Your task to perform on an android device: Open Google Maps and go to "Timeline" Image 0: 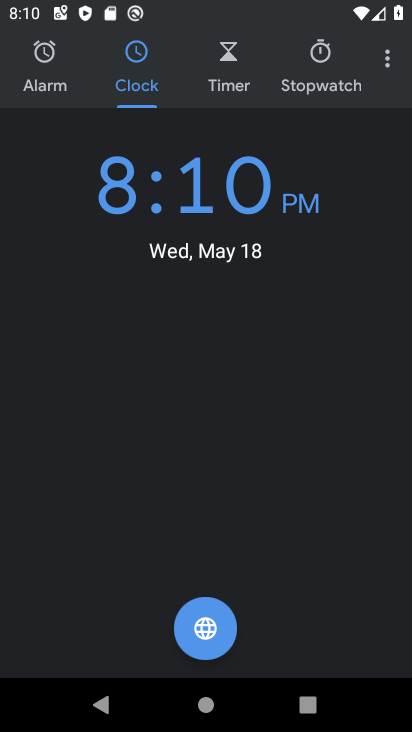
Step 0: press home button
Your task to perform on an android device: Open Google Maps and go to "Timeline" Image 1: 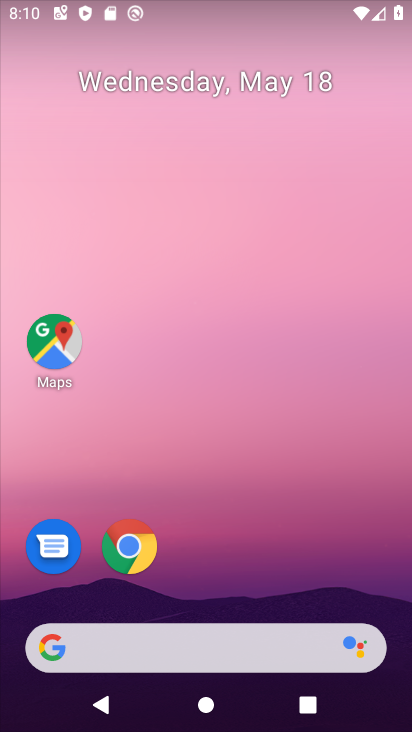
Step 1: drag from (254, 689) to (334, 234)
Your task to perform on an android device: Open Google Maps and go to "Timeline" Image 2: 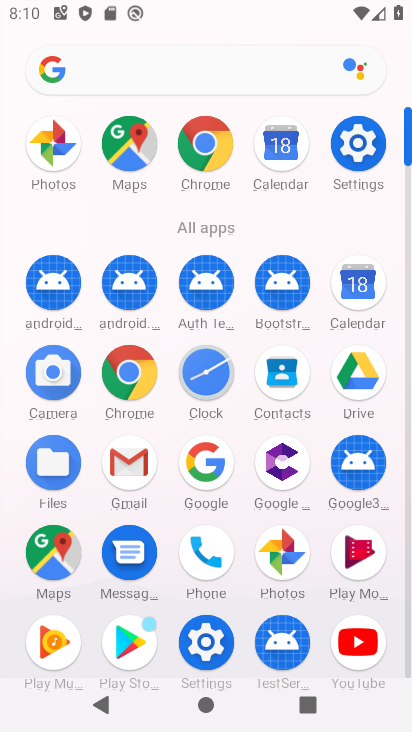
Step 2: click (64, 563)
Your task to perform on an android device: Open Google Maps and go to "Timeline" Image 3: 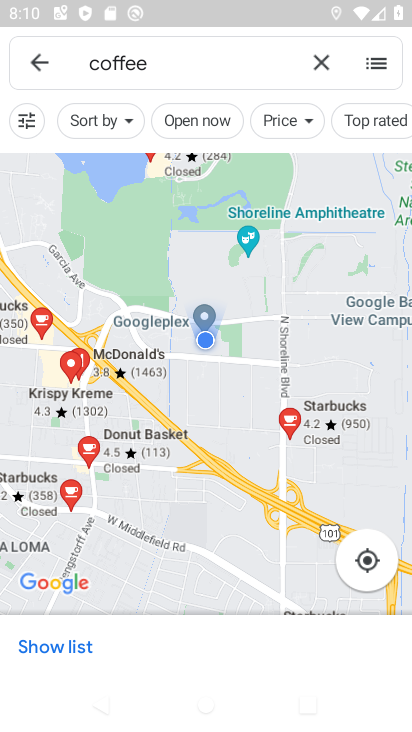
Step 3: click (44, 66)
Your task to perform on an android device: Open Google Maps and go to "Timeline" Image 4: 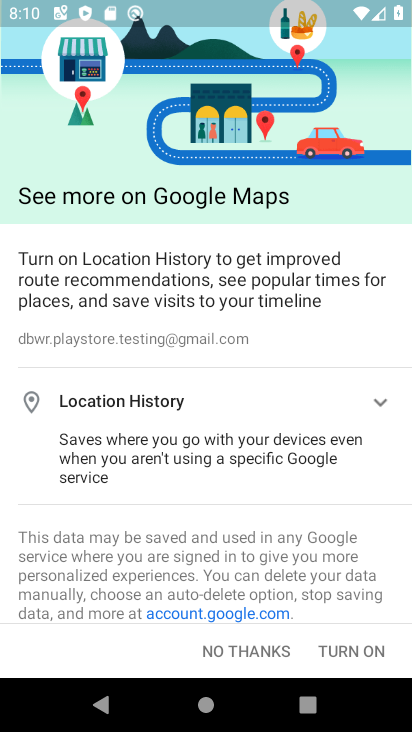
Step 4: click (228, 650)
Your task to perform on an android device: Open Google Maps and go to "Timeline" Image 5: 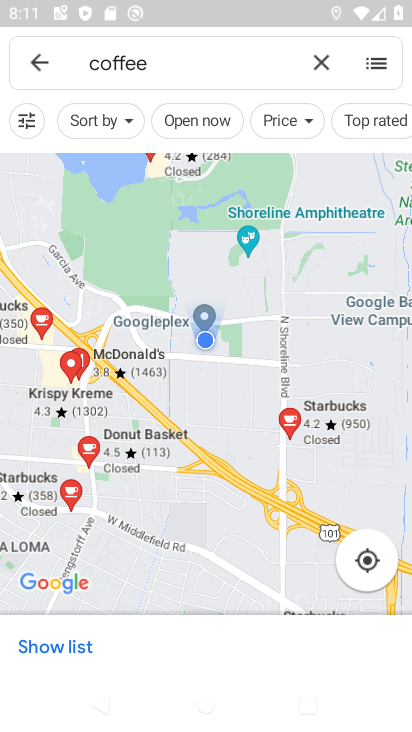
Step 5: click (34, 63)
Your task to perform on an android device: Open Google Maps and go to "Timeline" Image 6: 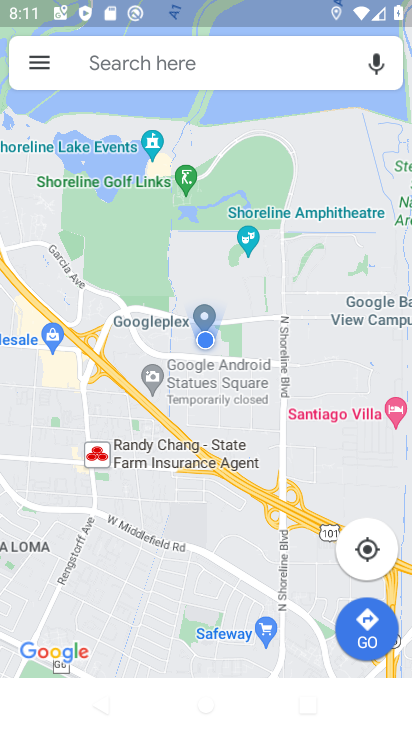
Step 6: click (38, 51)
Your task to perform on an android device: Open Google Maps and go to "Timeline" Image 7: 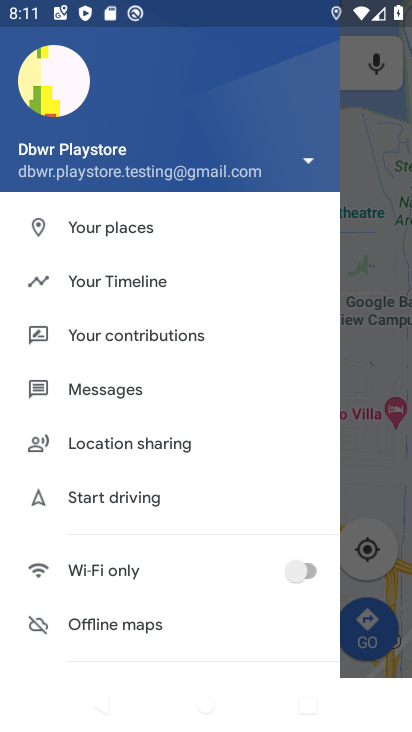
Step 7: click (106, 290)
Your task to perform on an android device: Open Google Maps and go to "Timeline" Image 8: 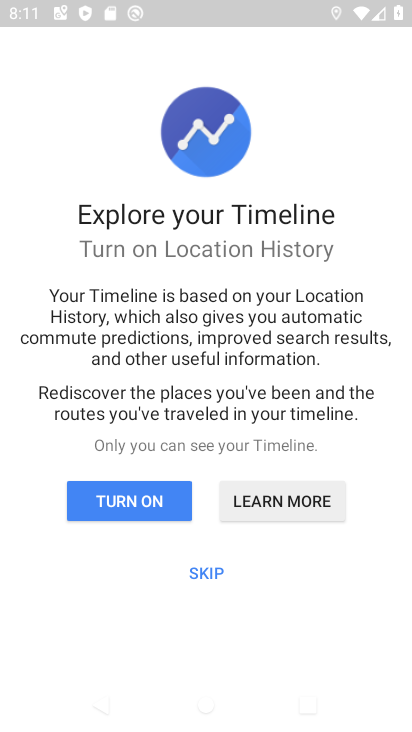
Step 8: click (204, 570)
Your task to perform on an android device: Open Google Maps and go to "Timeline" Image 9: 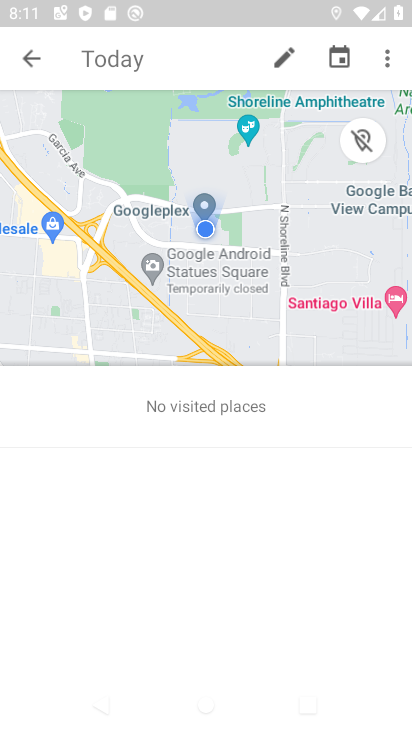
Step 9: task complete